Your task to perform on an android device: Open Google Chrome Image 0: 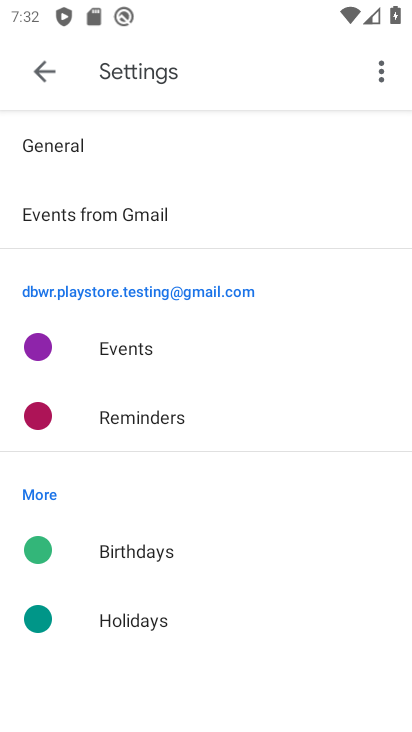
Step 0: press home button
Your task to perform on an android device: Open Google Chrome Image 1: 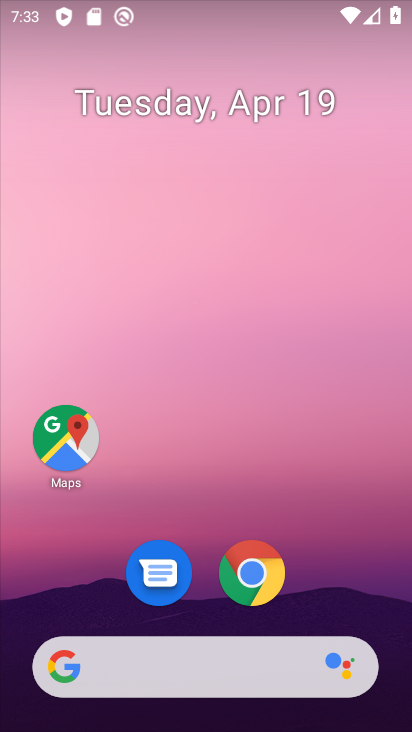
Step 1: drag from (273, 686) to (405, 176)
Your task to perform on an android device: Open Google Chrome Image 2: 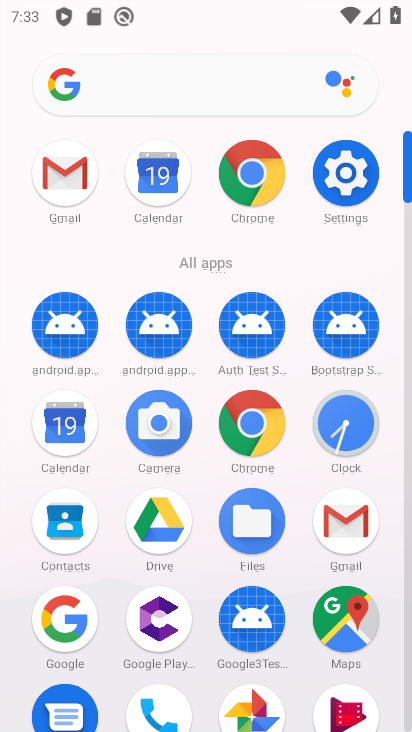
Step 2: click (241, 169)
Your task to perform on an android device: Open Google Chrome Image 3: 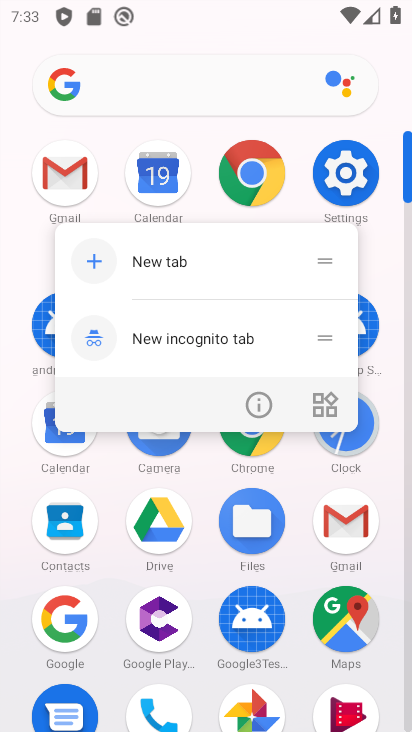
Step 3: click (235, 171)
Your task to perform on an android device: Open Google Chrome Image 4: 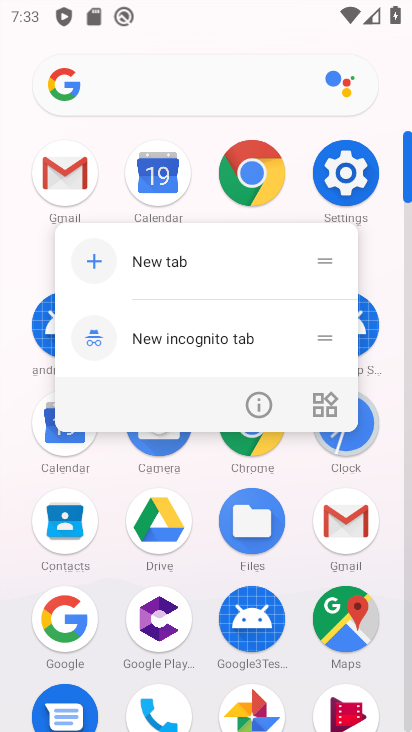
Step 4: click (235, 171)
Your task to perform on an android device: Open Google Chrome Image 5: 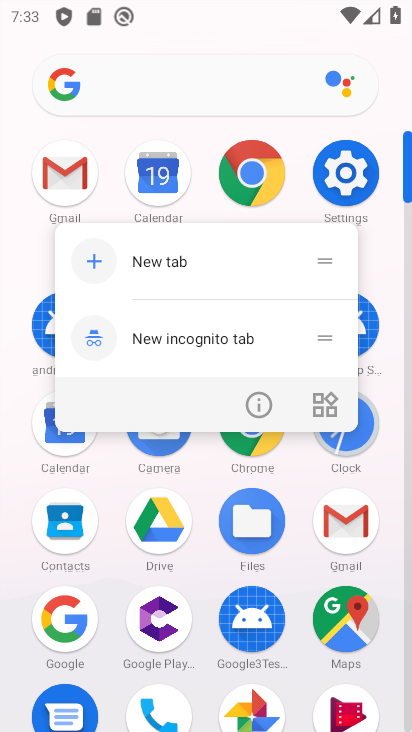
Step 5: click (235, 171)
Your task to perform on an android device: Open Google Chrome Image 6: 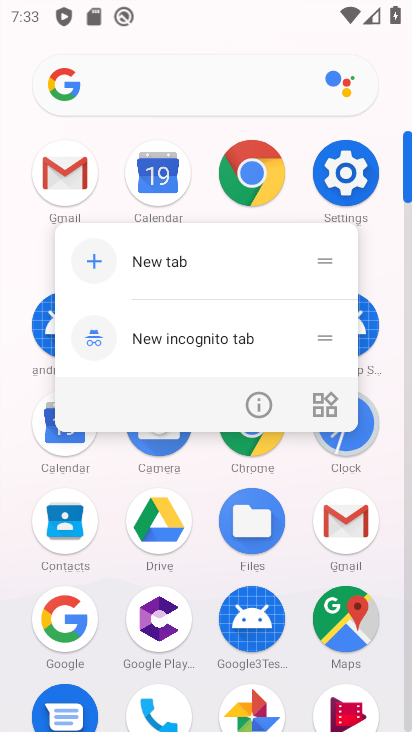
Step 6: click (272, 173)
Your task to perform on an android device: Open Google Chrome Image 7: 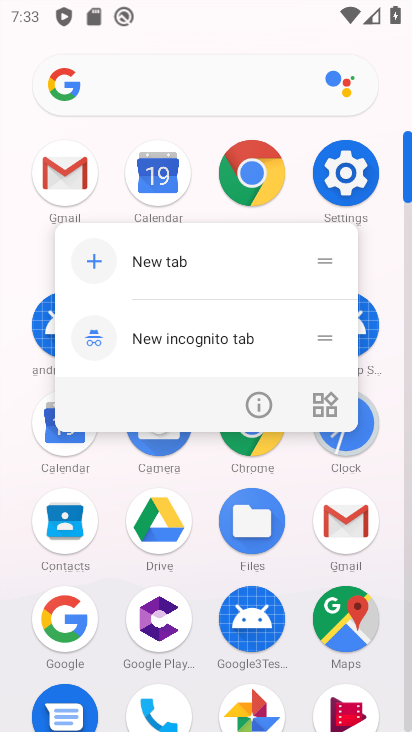
Step 7: click (262, 173)
Your task to perform on an android device: Open Google Chrome Image 8: 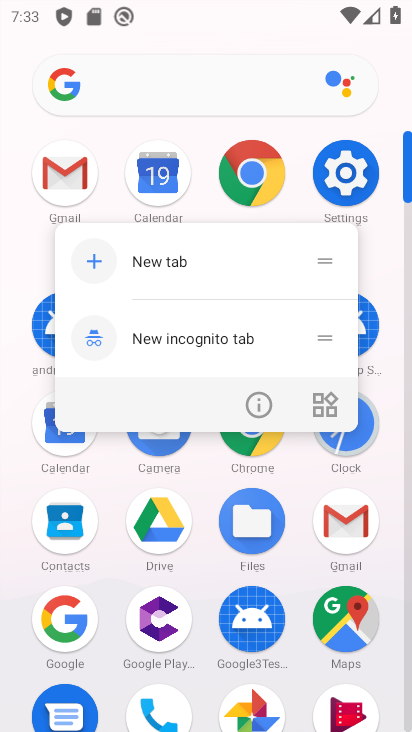
Step 8: click (262, 173)
Your task to perform on an android device: Open Google Chrome Image 9: 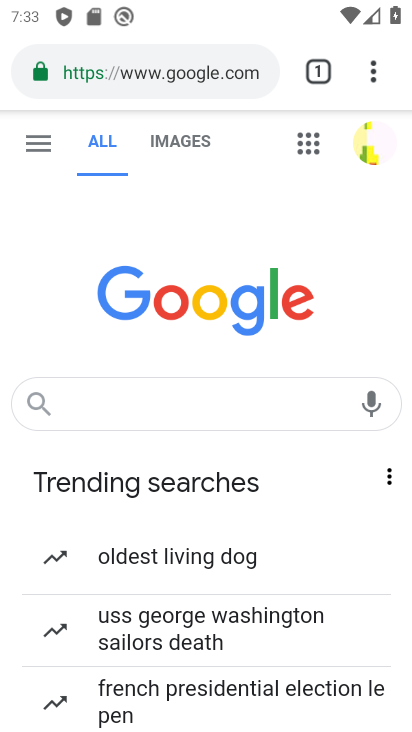
Step 9: task complete